Your task to perform on an android device: Search for Mexican restaurants on Maps Image 0: 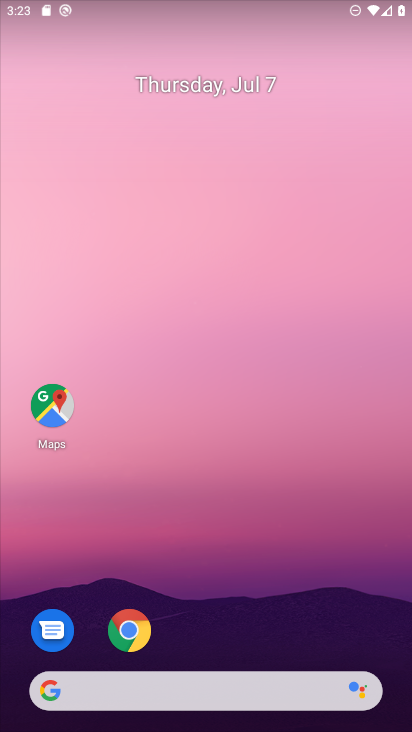
Step 0: click (327, 113)
Your task to perform on an android device: Search for Mexican restaurants on Maps Image 1: 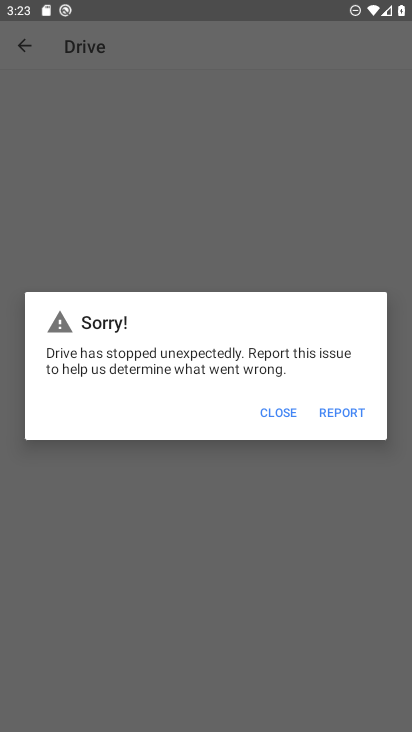
Step 1: press home button
Your task to perform on an android device: Search for Mexican restaurants on Maps Image 2: 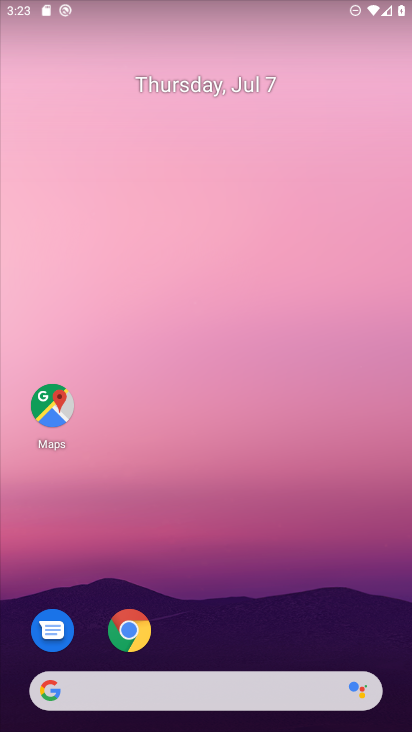
Step 2: drag from (366, 619) to (356, 153)
Your task to perform on an android device: Search for Mexican restaurants on Maps Image 3: 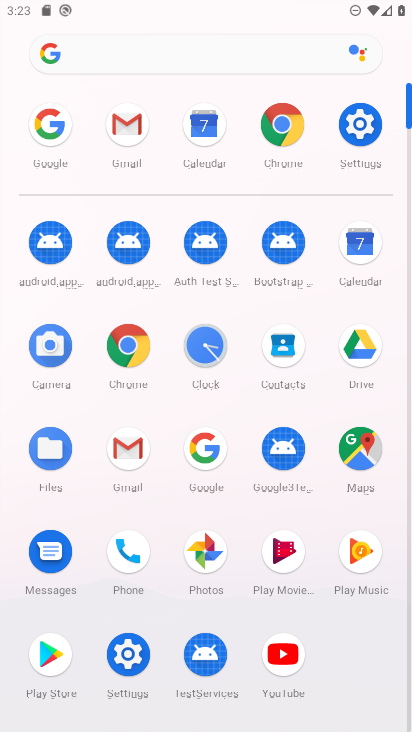
Step 3: click (360, 444)
Your task to perform on an android device: Search for Mexican restaurants on Maps Image 4: 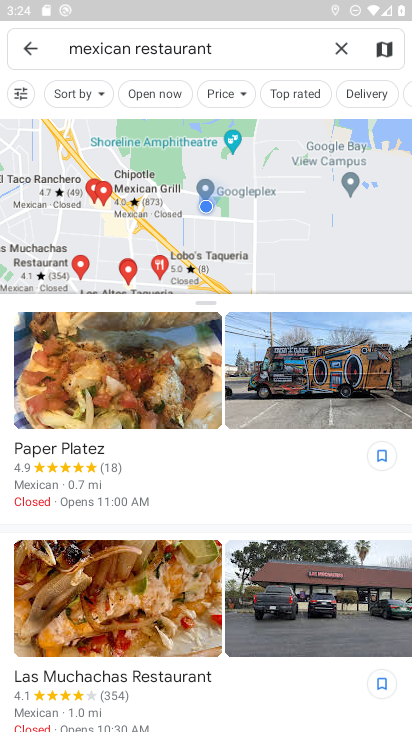
Step 4: task complete